Your task to perform on an android device: Open Yahoo.com Image 0: 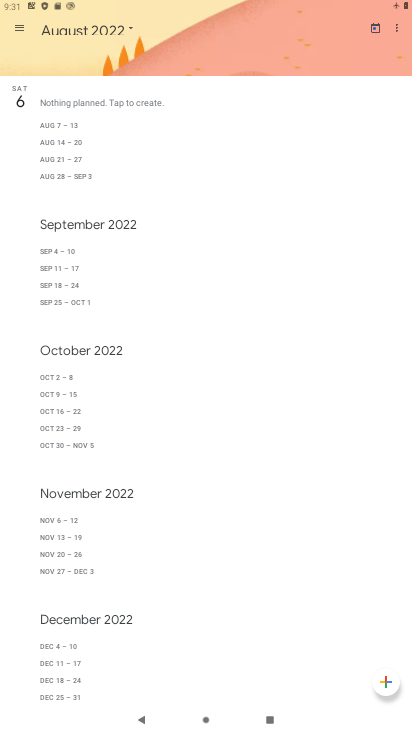
Step 0: press home button
Your task to perform on an android device: Open Yahoo.com Image 1: 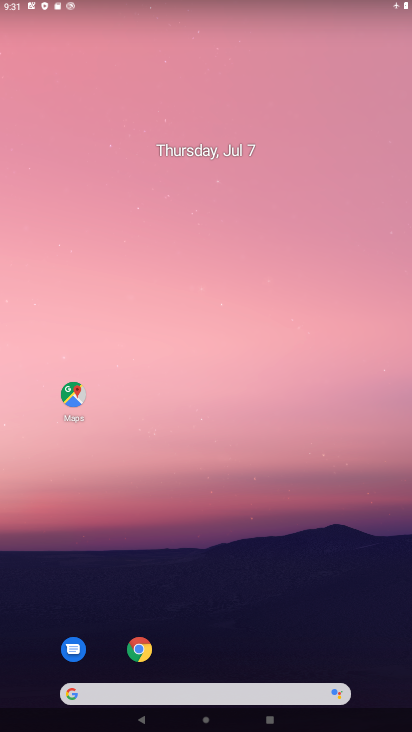
Step 1: drag from (235, 713) to (237, 181)
Your task to perform on an android device: Open Yahoo.com Image 2: 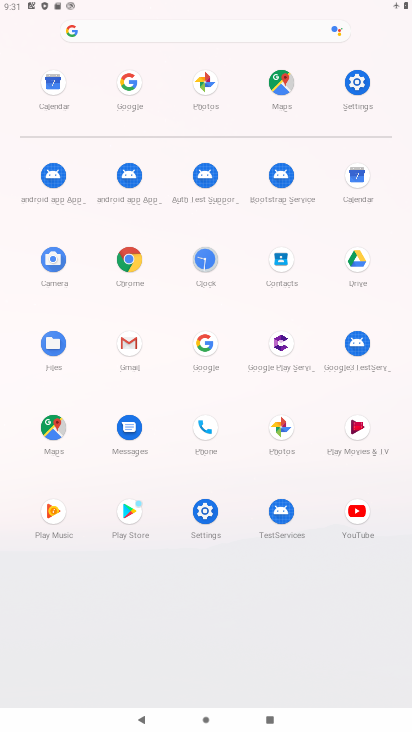
Step 2: click (131, 257)
Your task to perform on an android device: Open Yahoo.com Image 3: 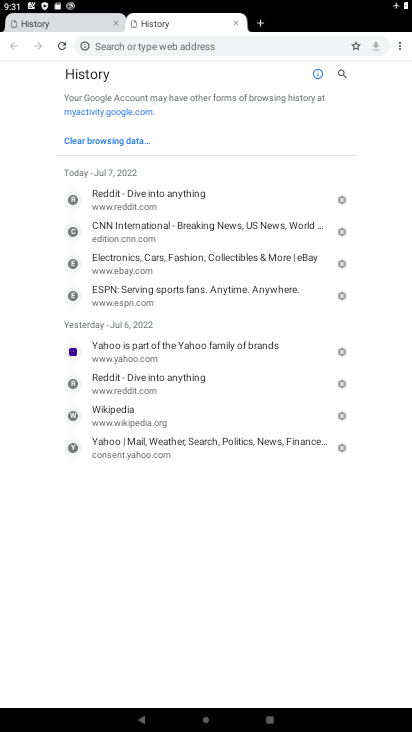
Step 3: click (401, 48)
Your task to perform on an android device: Open Yahoo.com Image 4: 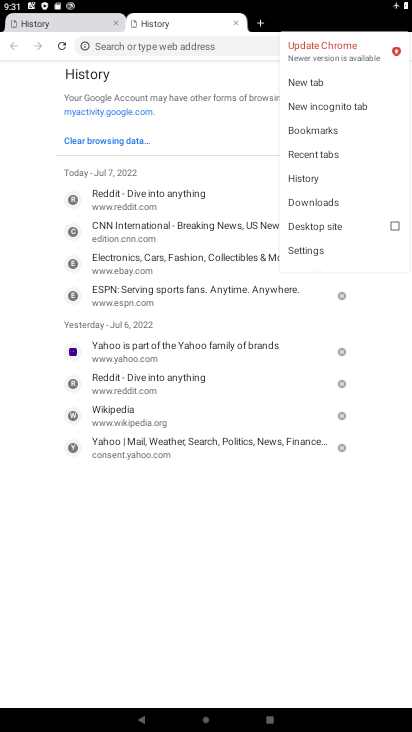
Step 4: click (308, 82)
Your task to perform on an android device: Open Yahoo.com Image 5: 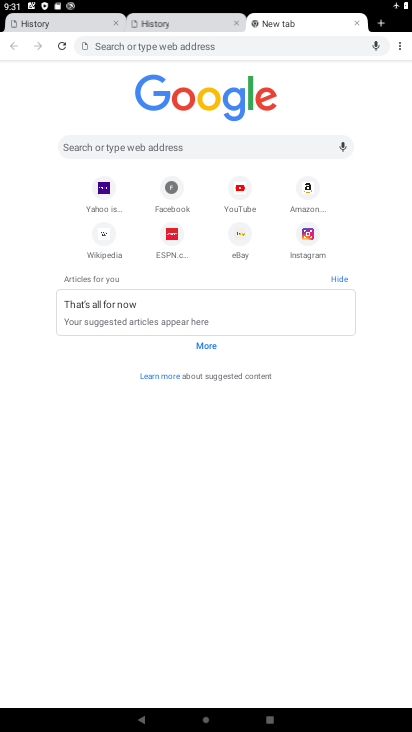
Step 5: click (105, 190)
Your task to perform on an android device: Open Yahoo.com Image 6: 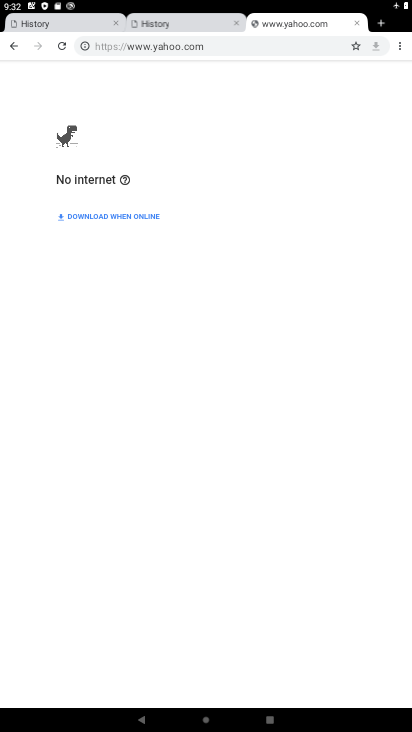
Step 6: task complete